Your task to perform on an android device: Open Chrome and go to the settings page Image 0: 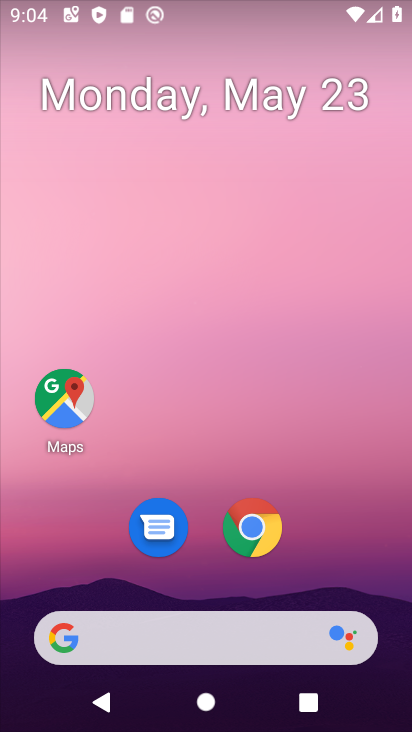
Step 0: click (260, 527)
Your task to perform on an android device: Open Chrome and go to the settings page Image 1: 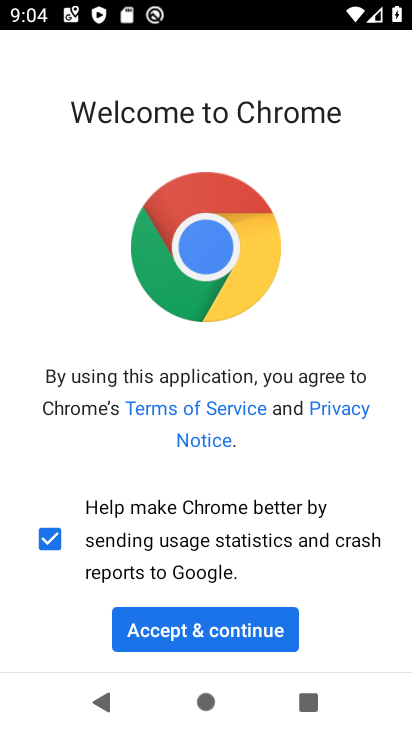
Step 1: click (266, 624)
Your task to perform on an android device: Open Chrome and go to the settings page Image 2: 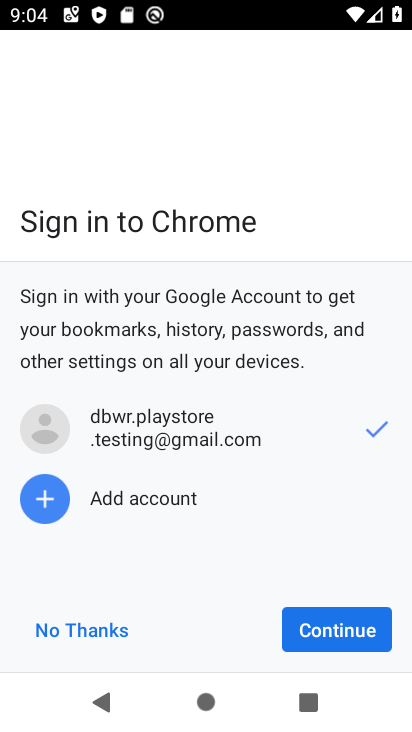
Step 2: click (328, 618)
Your task to perform on an android device: Open Chrome and go to the settings page Image 3: 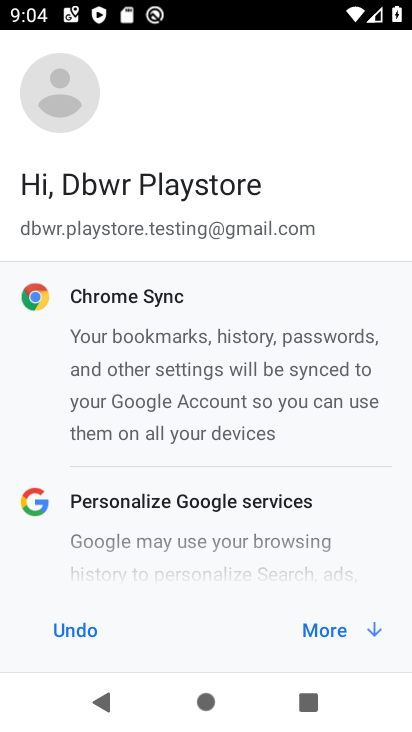
Step 3: click (328, 619)
Your task to perform on an android device: Open Chrome and go to the settings page Image 4: 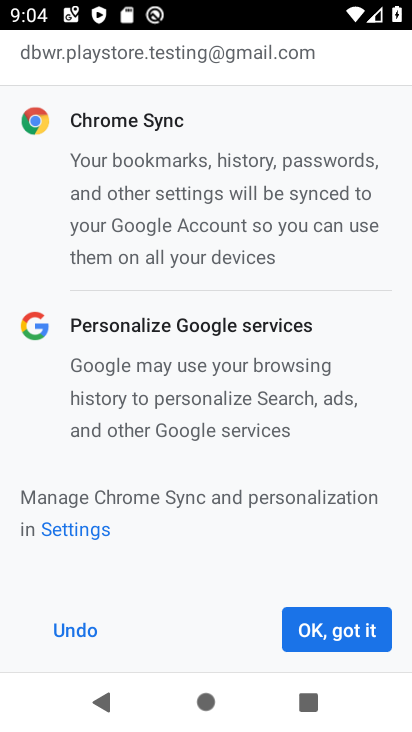
Step 4: click (328, 616)
Your task to perform on an android device: Open Chrome and go to the settings page Image 5: 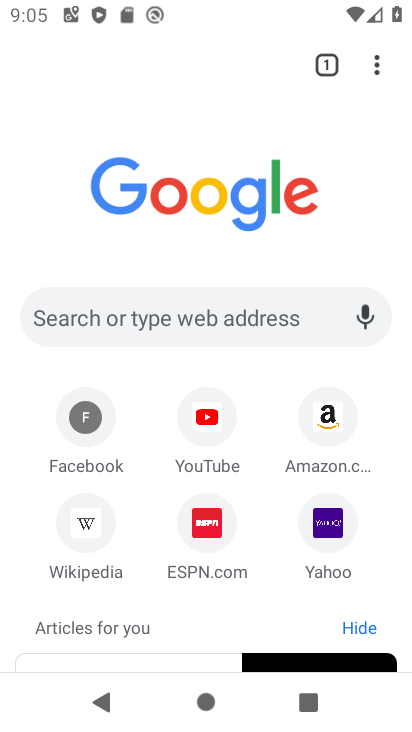
Step 5: click (373, 63)
Your task to perform on an android device: Open Chrome and go to the settings page Image 6: 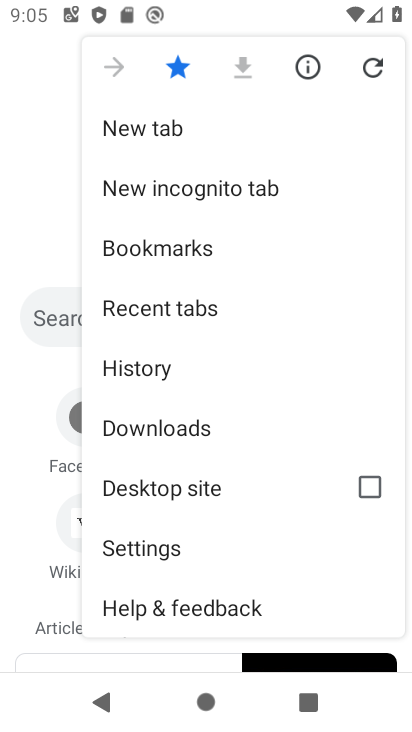
Step 6: click (162, 540)
Your task to perform on an android device: Open Chrome and go to the settings page Image 7: 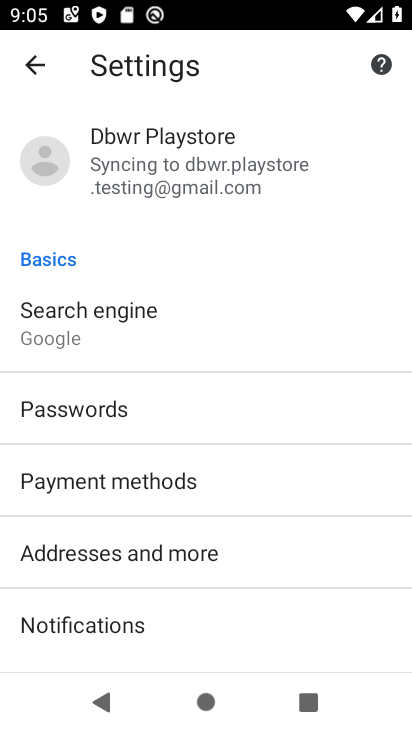
Step 7: task complete